Your task to perform on an android device: Go to Google Image 0: 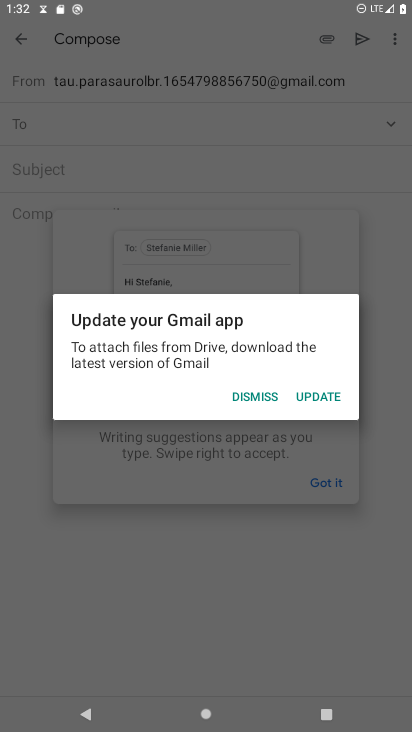
Step 0: press home button
Your task to perform on an android device: Go to Google Image 1: 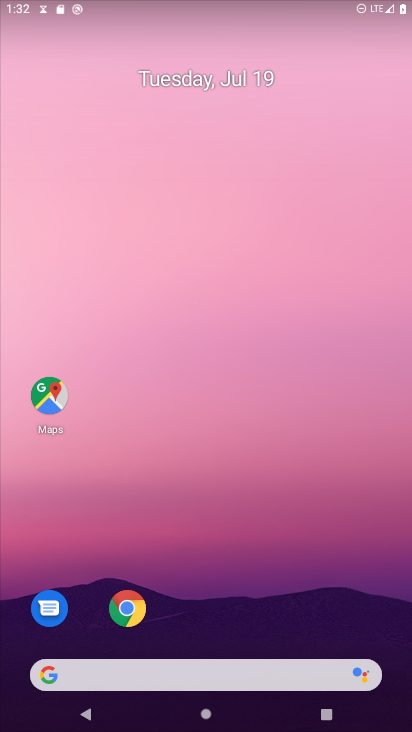
Step 1: drag from (243, 680) to (336, 35)
Your task to perform on an android device: Go to Google Image 2: 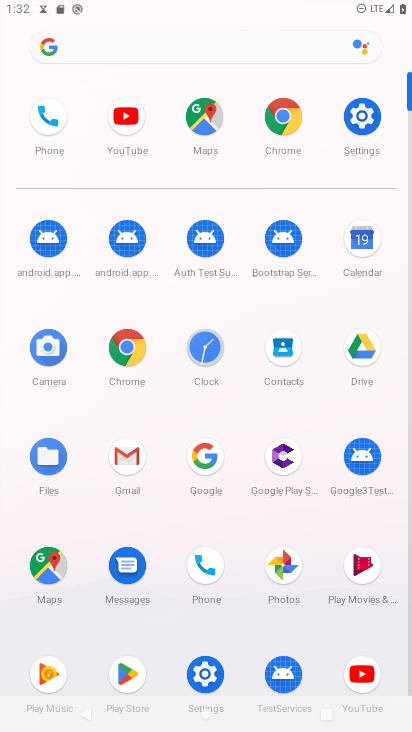
Step 2: click (128, 346)
Your task to perform on an android device: Go to Google Image 3: 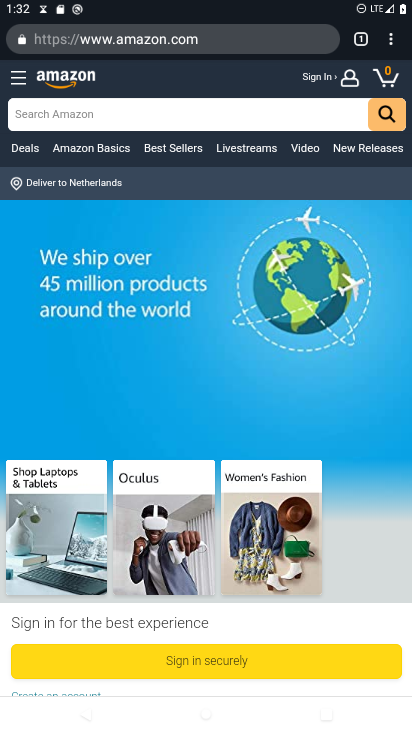
Step 3: task complete